Your task to perform on an android device: manage bookmarks in the chrome app Image 0: 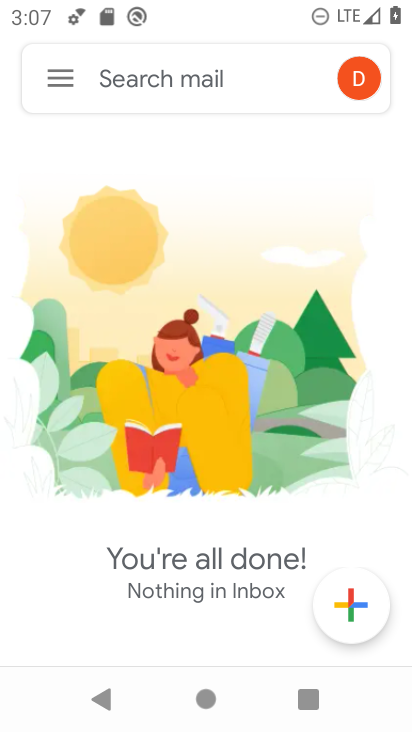
Step 0: press home button
Your task to perform on an android device: manage bookmarks in the chrome app Image 1: 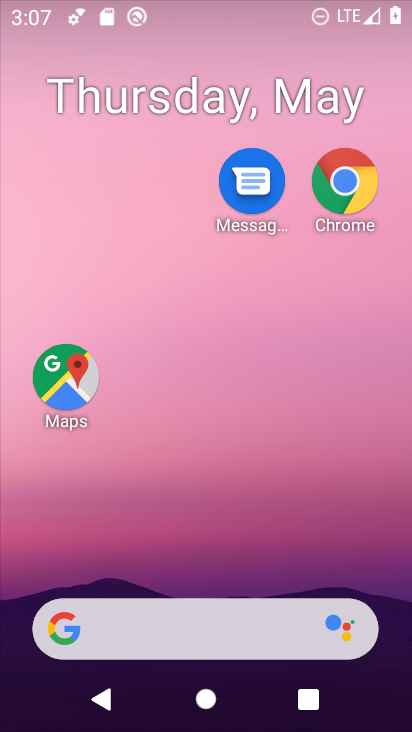
Step 1: drag from (134, 621) to (347, 9)
Your task to perform on an android device: manage bookmarks in the chrome app Image 2: 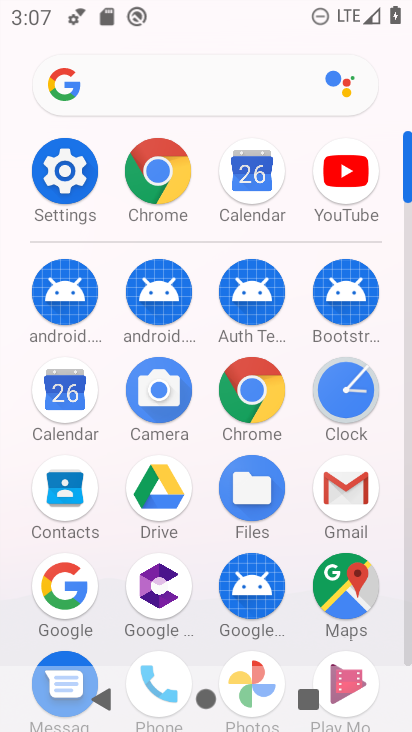
Step 2: click (267, 381)
Your task to perform on an android device: manage bookmarks in the chrome app Image 3: 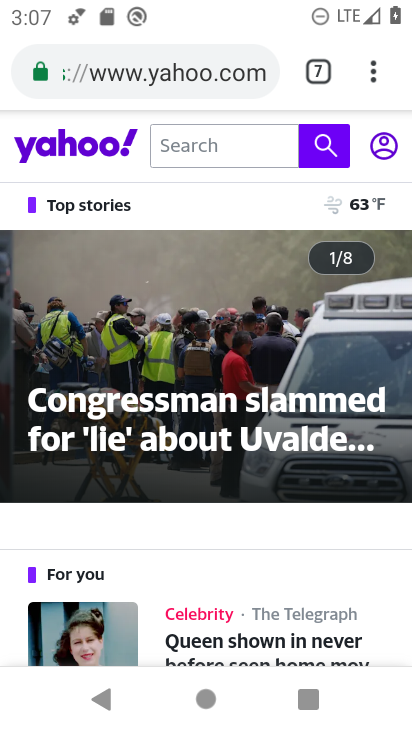
Step 3: task complete